Your task to perform on an android device: open app "Microsoft Authenticator" (install if not already installed) Image 0: 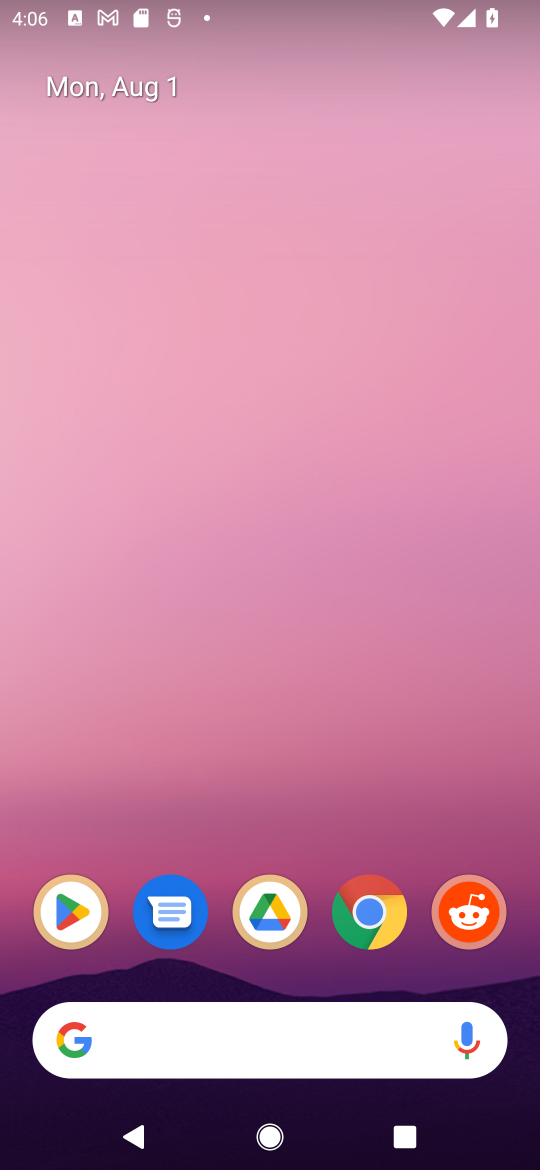
Step 0: click (54, 917)
Your task to perform on an android device: open app "Microsoft Authenticator" (install if not already installed) Image 1: 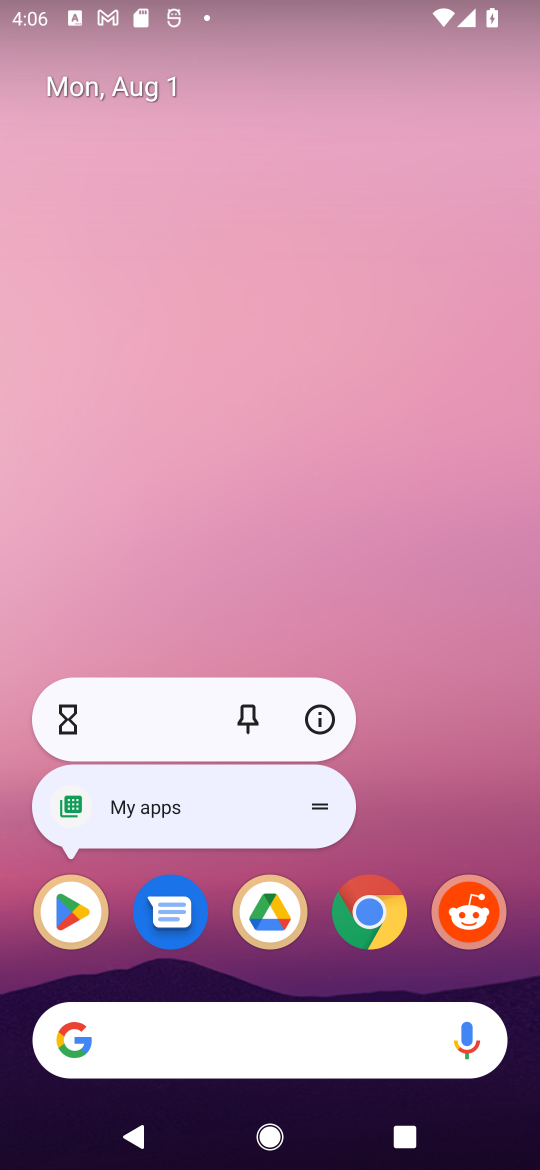
Step 1: click (54, 917)
Your task to perform on an android device: open app "Microsoft Authenticator" (install if not already installed) Image 2: 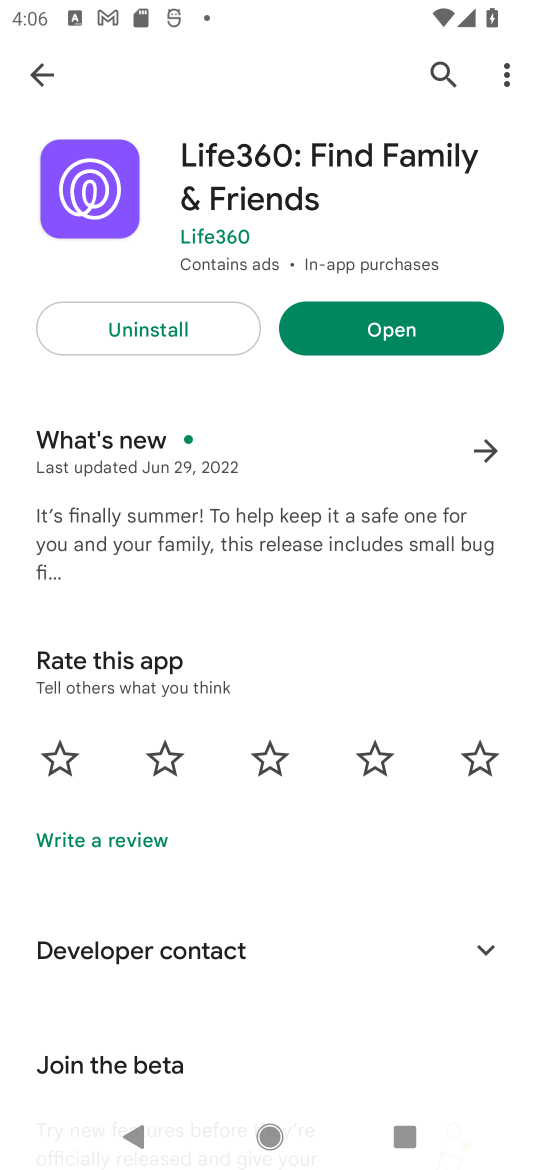
Step 2: click (446, 78)
Your task to perform on an android device: open app "Microsoft Authenticator" (install if not already installed) Image 3: 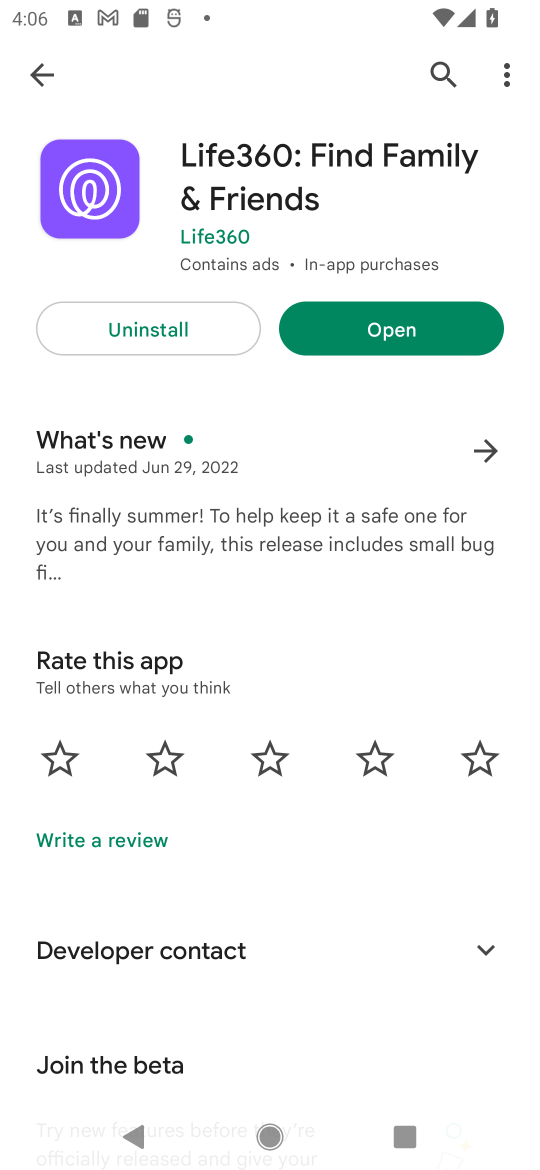
Step 3: click (446, 78)
Your task to perform on an android device: open app "Microsoft Authenticator" (install if not already installed) Image 4: 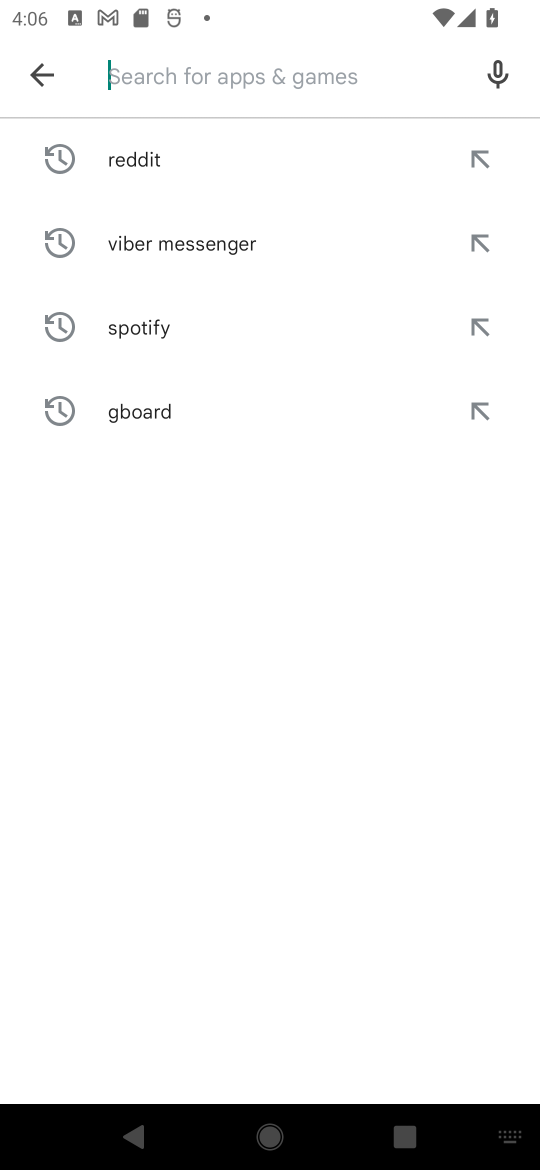
Step 4: type "Microsoft Authenticator"
Your task to perform on an android device: open app "Microsoft Authenticator" (install if not already installed) Image 5: 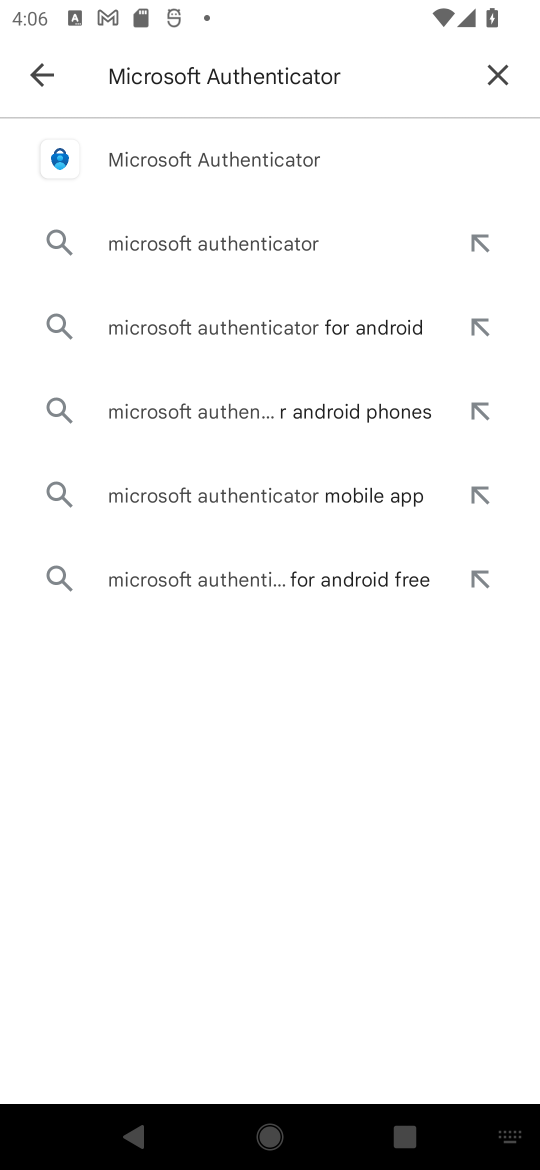
Step 5: click (256, 181)
Your task to perform on an android device: open app "Microsoft Authenticator" (install if not already installed) Image 6: 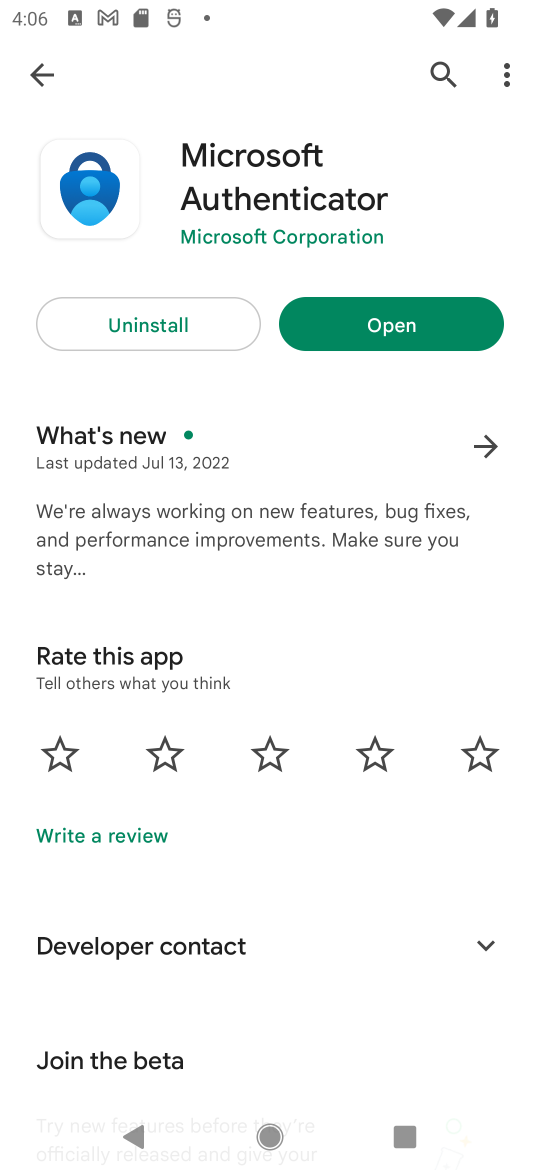
Step 6: click (356, 327)
Your task to perform on an android device: open app "Microsoft Authenticator" (install if not already installed) Image 7: 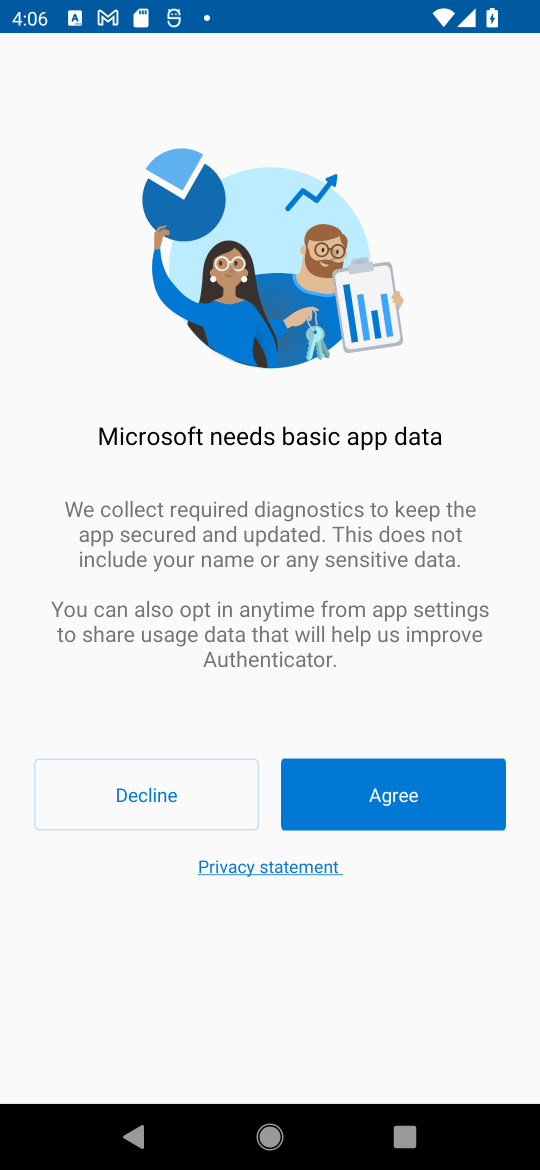
Step 7: task complete